Your task to perform on an android device: turn on javascript in the chrome app Image 0: 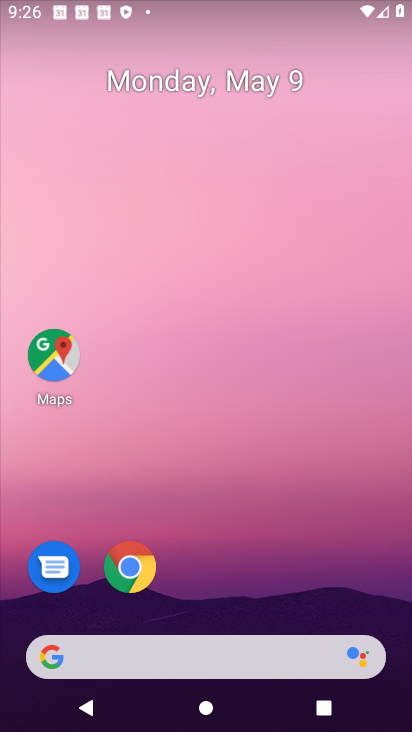
Step 0: click (144, 579)
Your task to perform on an android device: turn on javascript in the chrome app Image 1: 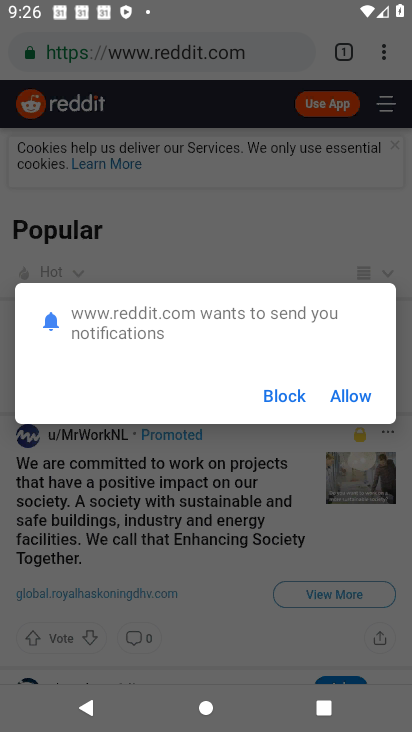
Step 1: press back button
Your task to perform on an android device: turn on javascript in the chrome app Image 2: 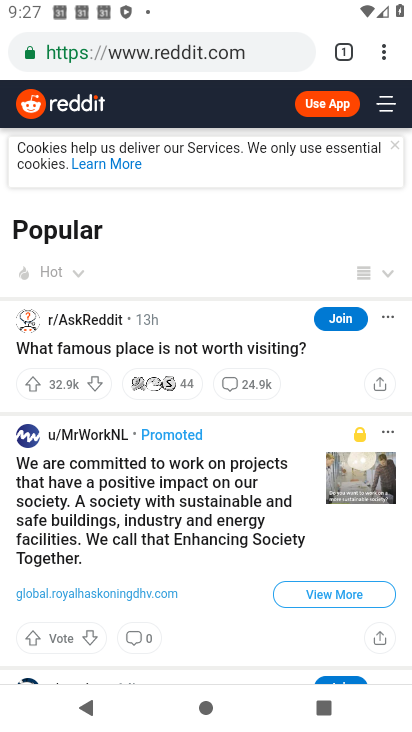
Step 2: drag from (388, 52) to (238, 605)
Your task to perform on an android device: turn on javascript in the chrome app Image 3: 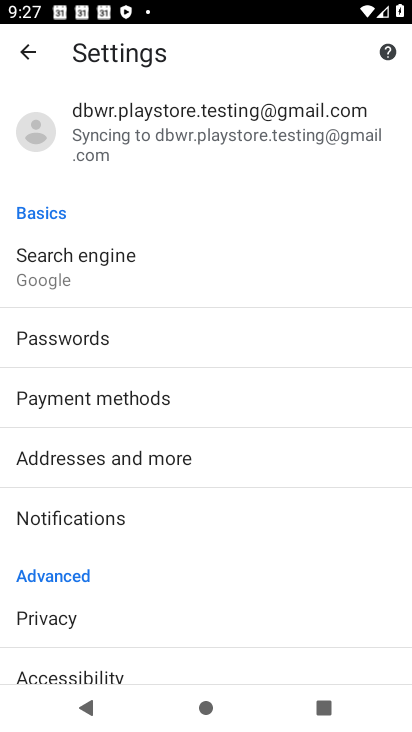
Step 3: drag from (132, 592) to (108, 183)
Your task to perform on an android device: turn on javascript in the chrome app Image 4: 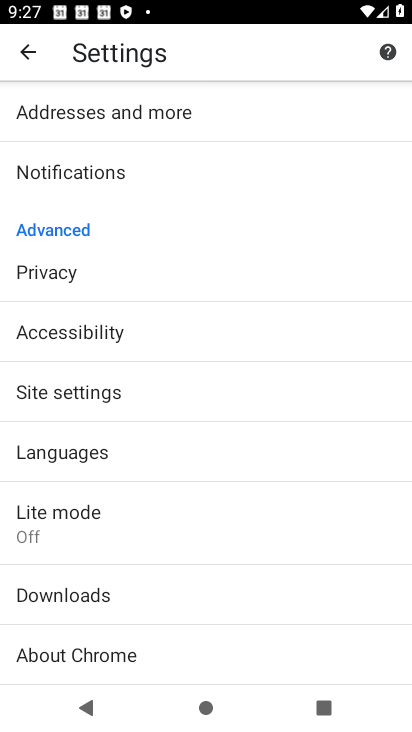
Step 4: click (105, 394)
Your task to perform on an android device: turn on javascript in the chrome app Image 5: 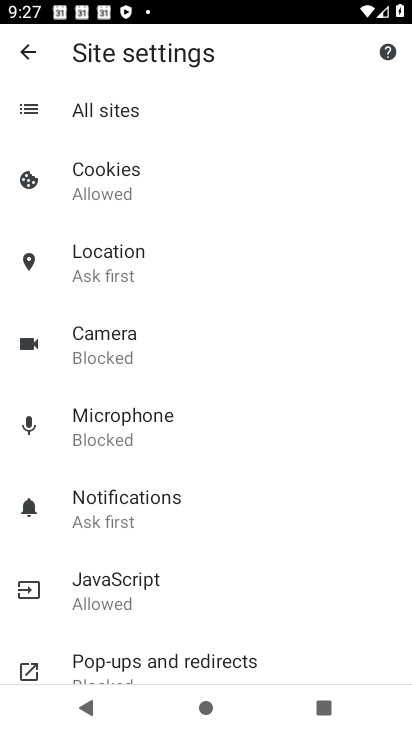
Step 5: click (159, 599)
Your task to perform on an android device: turn on javascript in the chrome app Image 6: 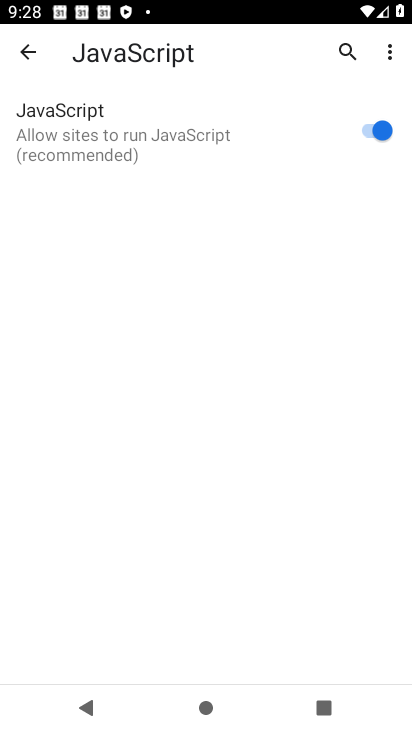
Step 6: task complete